Your task to perform on an android device: turn off wifi Image 0: 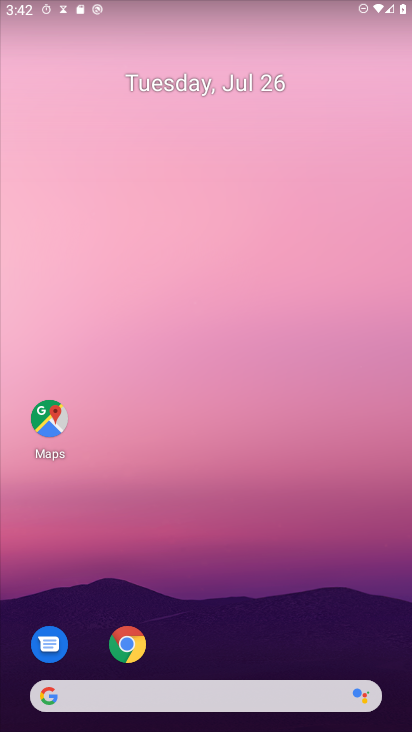
Step 0: press home button
Your task to perform on an android device: turn off wifi Image 1: 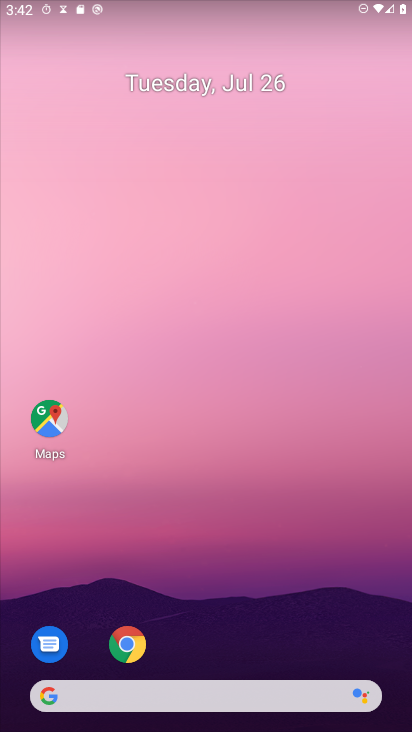
Step 1: drag from (240, 663) to (209, 147)
Your task to perform on an android device: turn off wifi Image 2: 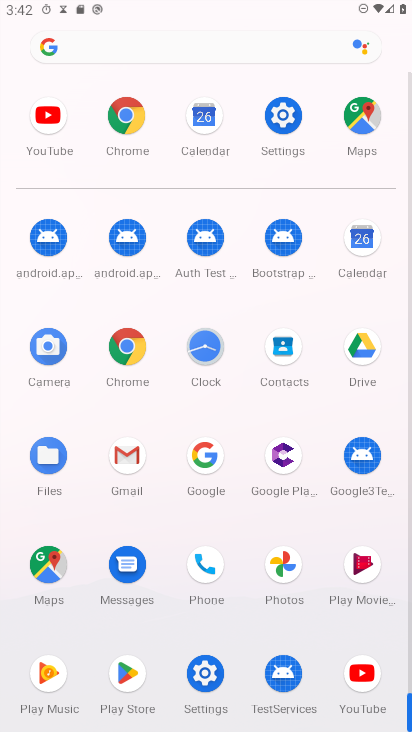
Step 2: click (279, 118)
Your task to perform on an android device: turn off wifi Image 3: 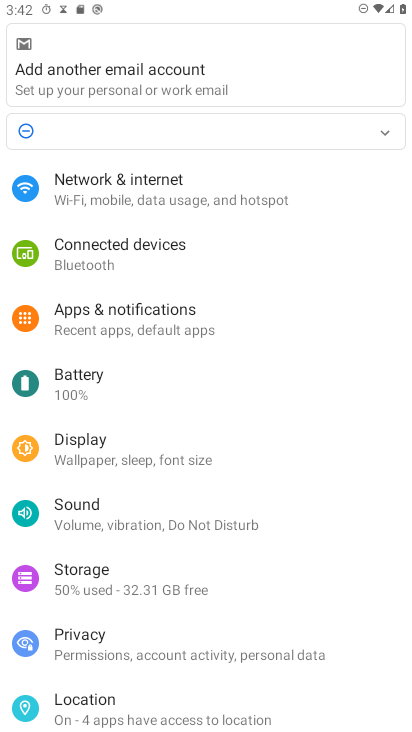
Step 3: click (148, 191)
Your task to perform on an android device: turn off wifi Image 4: 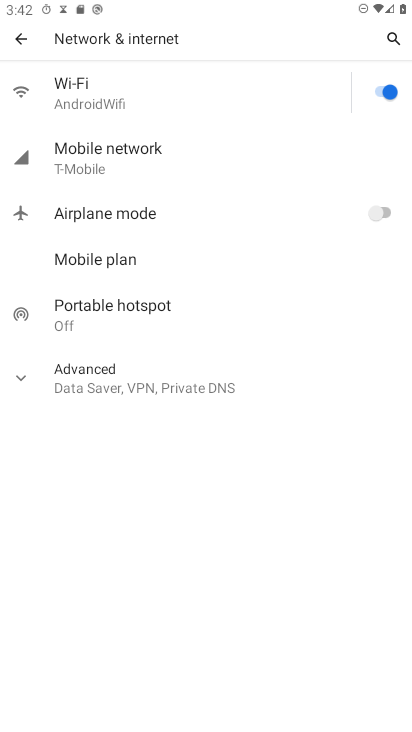
Step 4: click (382, 71)
Your task to perform on an android device: turn off wifi Image 5: 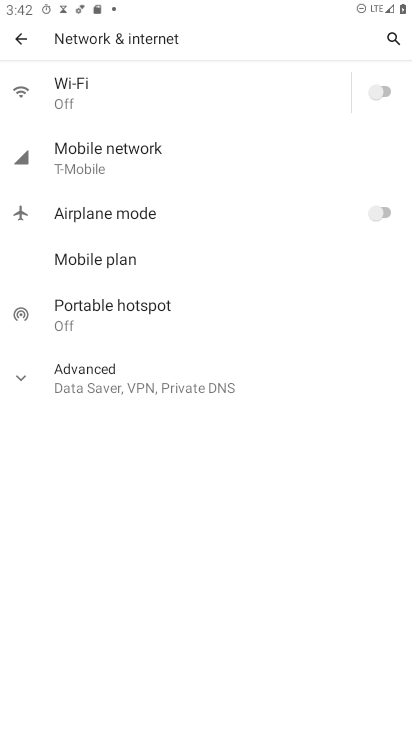
Step 5: task complete